Your task to perform on an android device: Search for usb-c to usb-a on target, select the first entry, and add it to the cart. Image 0: 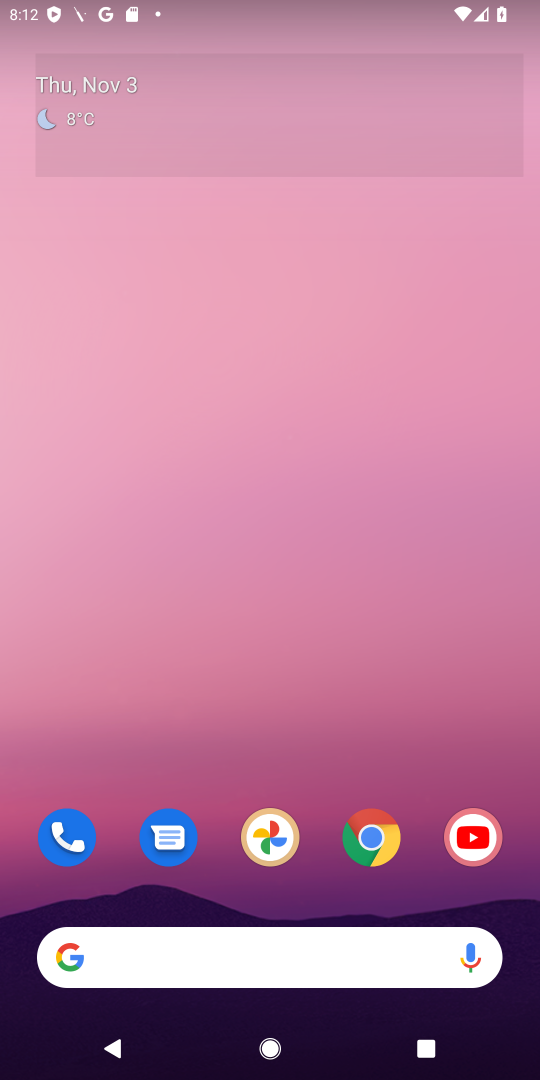
Step 0: click (370, 831)
Your task to perform on an android device: Search for usb-c to usb-a on target, select the first entry, and add it to the cart. Image 1: 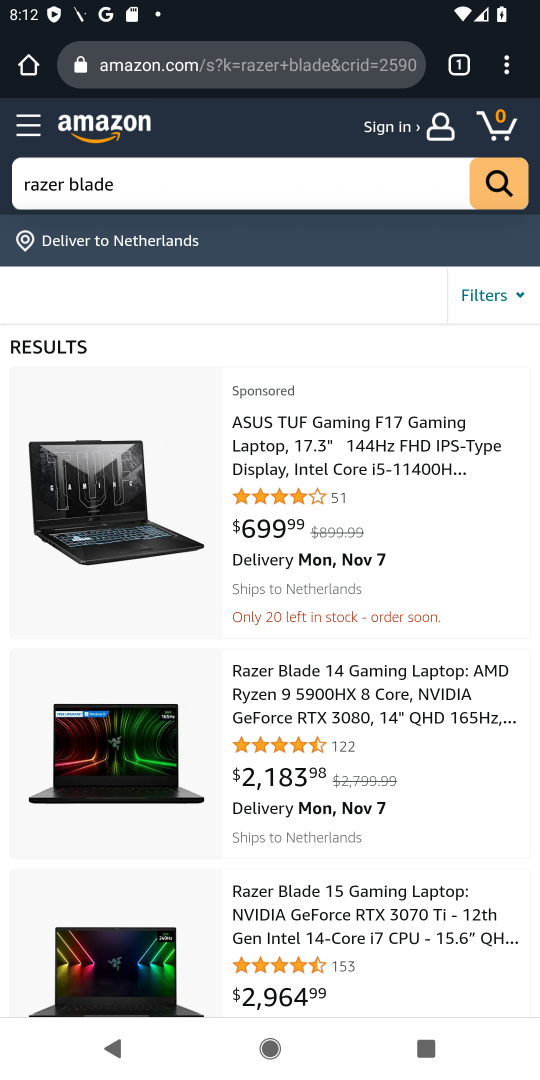
Step 1: click (216, 68)
Your task to perform on an android device: Search for usb-c to usb-a on target, select the first entry, and add it to the cart. Image 2: 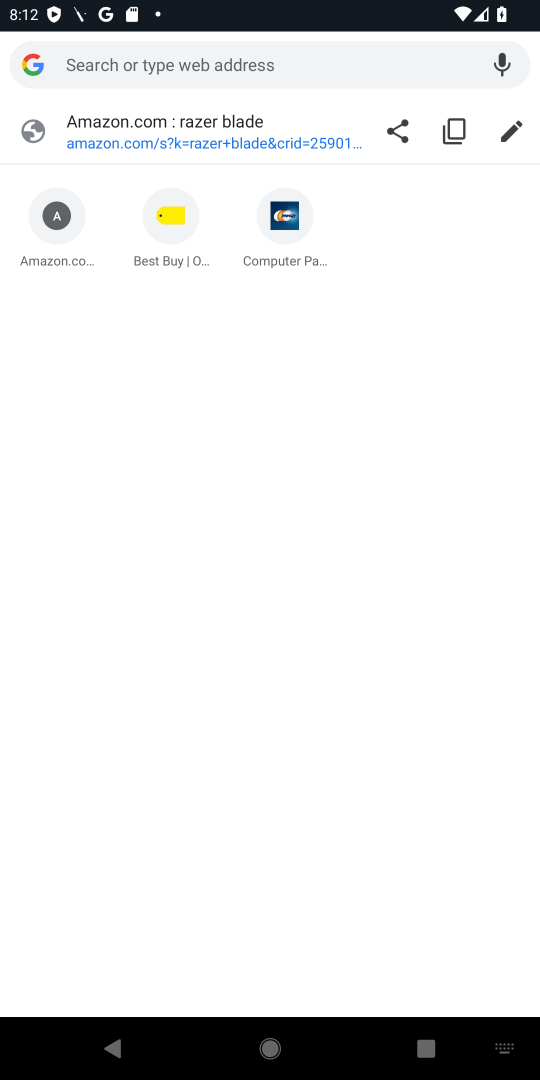
Step 2: type "target"
Your task to perform on an android device: Search for usb-c to usb-a on target, select the first entry, and add it to the cart. Image 3: 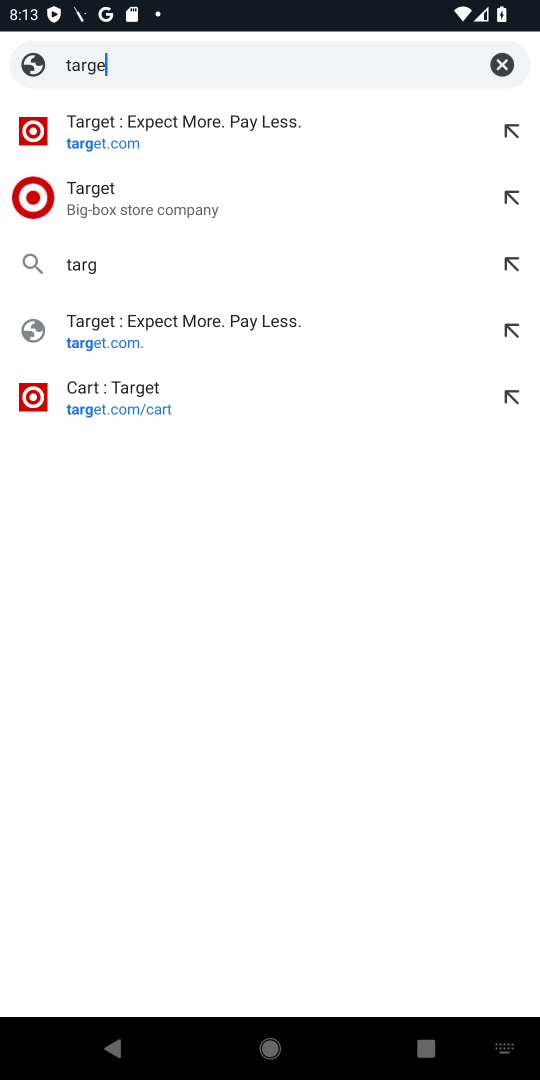
Step 3: press enter
Your task to perform on an android device: Search for usb-c to usb-a on target, select the first entry, and add it to the cart. Image 4: 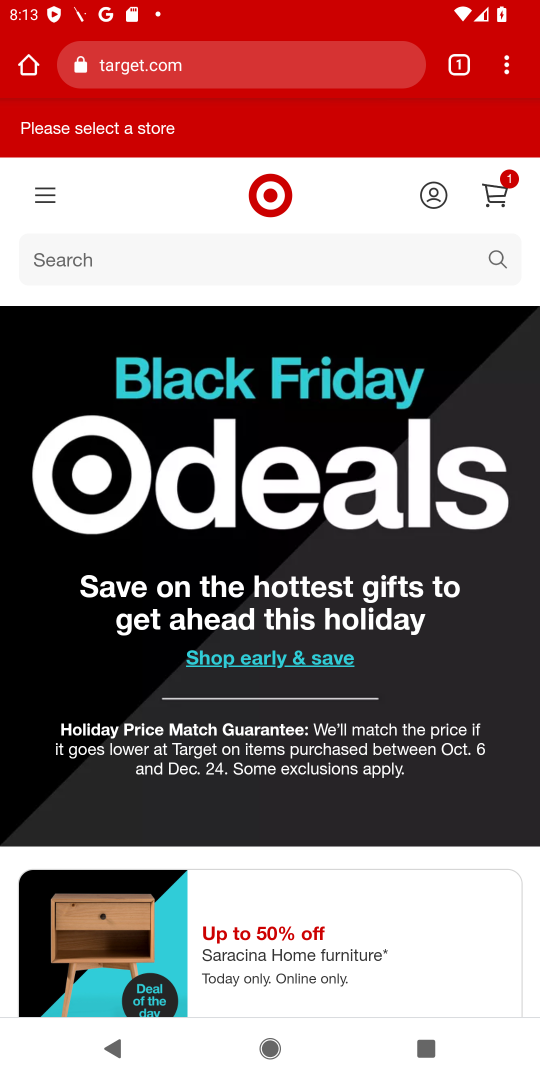
Step 4: click (126, 244)
Your task to perform on an android device: Search for usb-c to usb-a on target, select the first entry, and add it to the cart. Image 5: 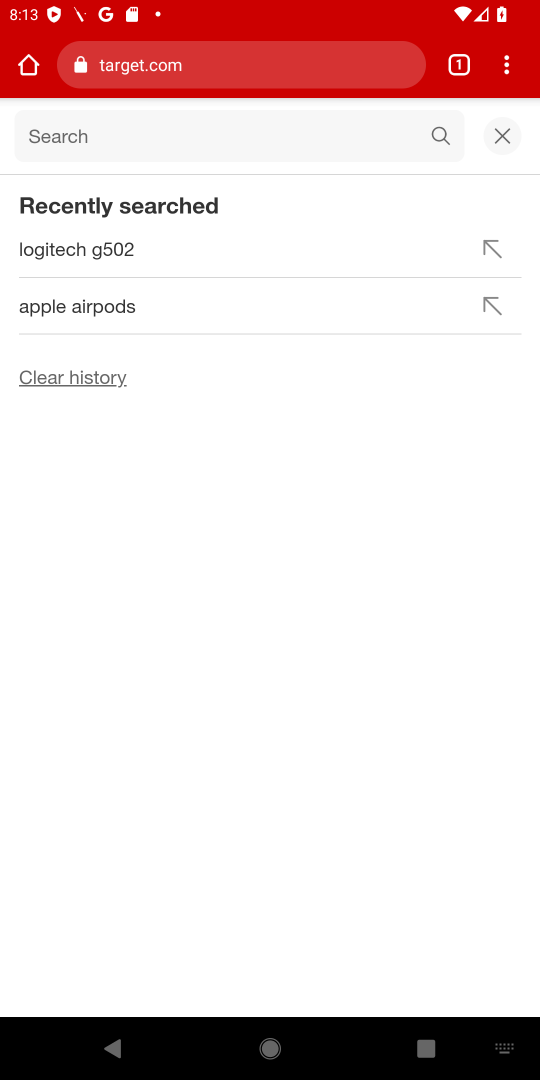
Step 5: type "usb-c to usb-a "
Your task to perform on an android device: Search for usb-c to usb-a on target, select the first entry, and add it to the cart. Image 6: 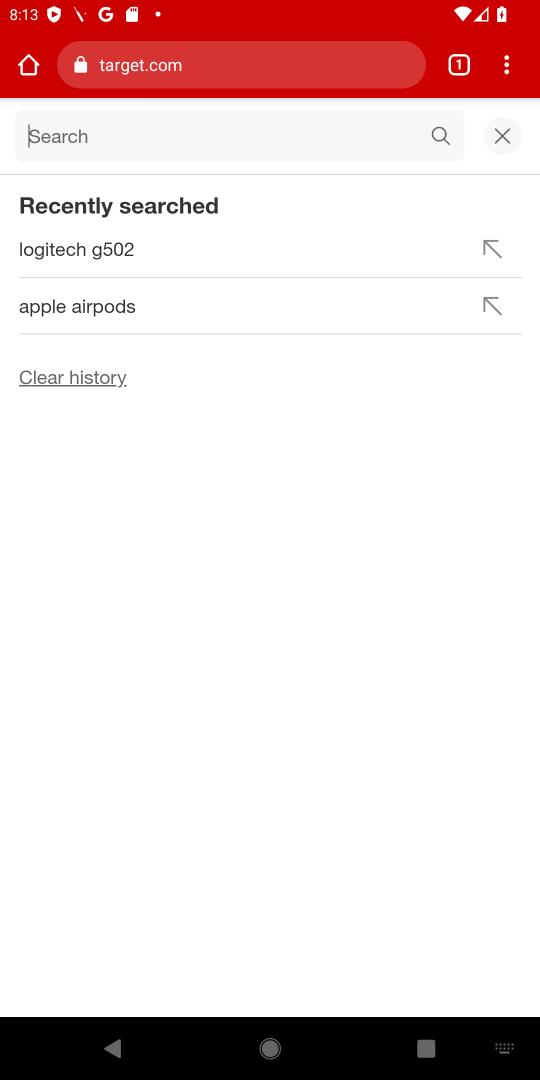
Step 6: press enter
Your task to perform on an android device: Search for usb-c to usb-a on target, select the first entry, and add it to the cart. Image 7: 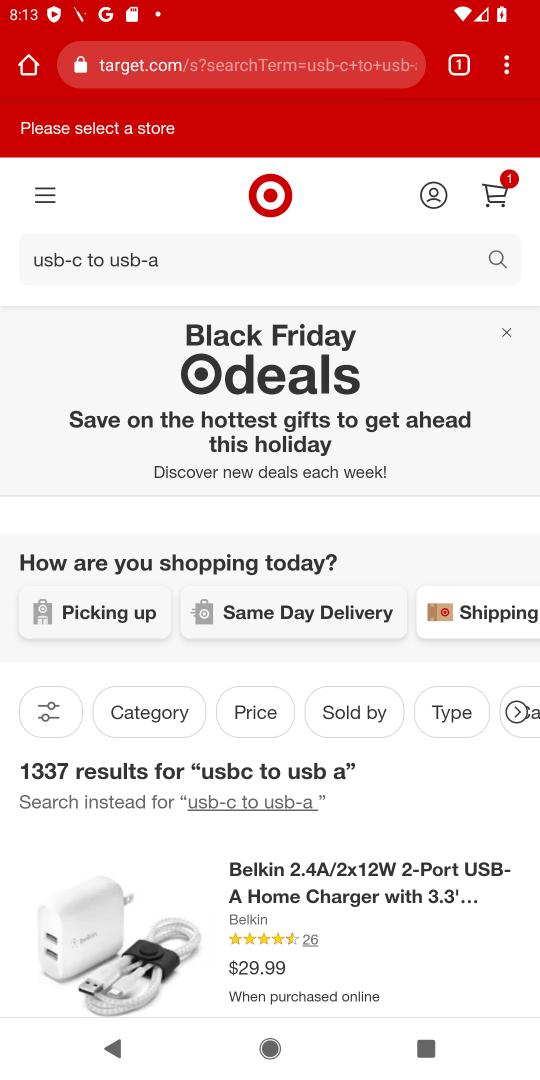
Step 7: drag from (187, 764) to (365, 492)
Your task to perform on an android device: Search for usb-c to usb-a on target, select the first entry, and add it to the cart. Image 8: 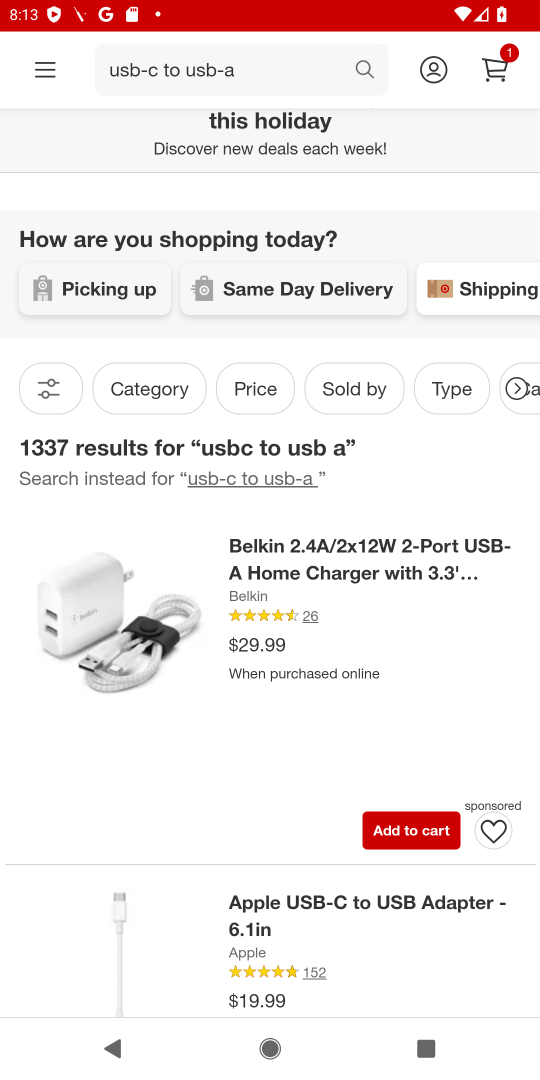
Step 8: click (347, 603)
Your task to perform on an android device: Search for usb-c to usb-a on target, select the first entry, and add it to the cart. Image 9: 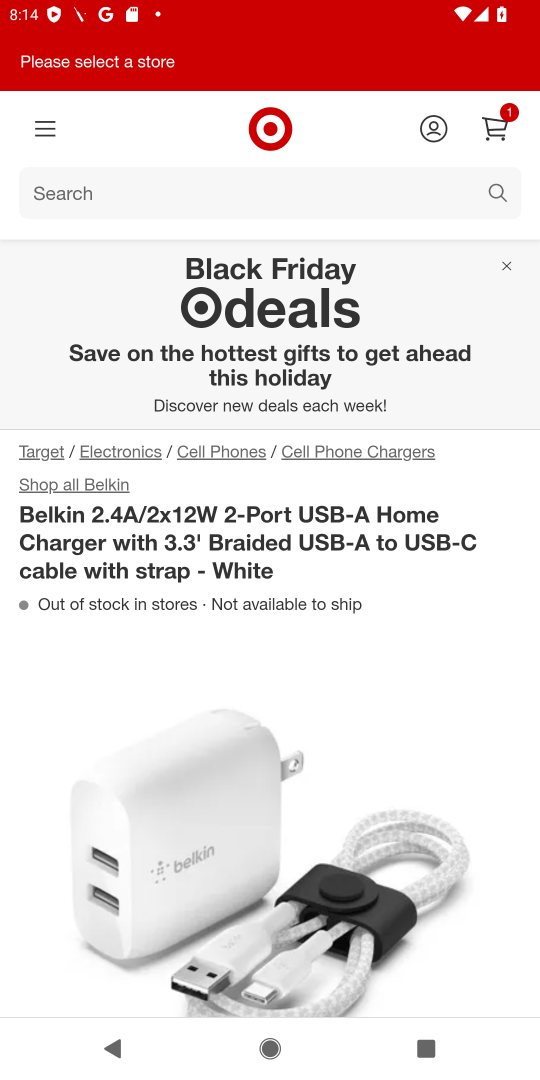
Step 9: task complete